Your task to perform on an android device: Add usb-c to usb-b to the cart on ebay Image 0: 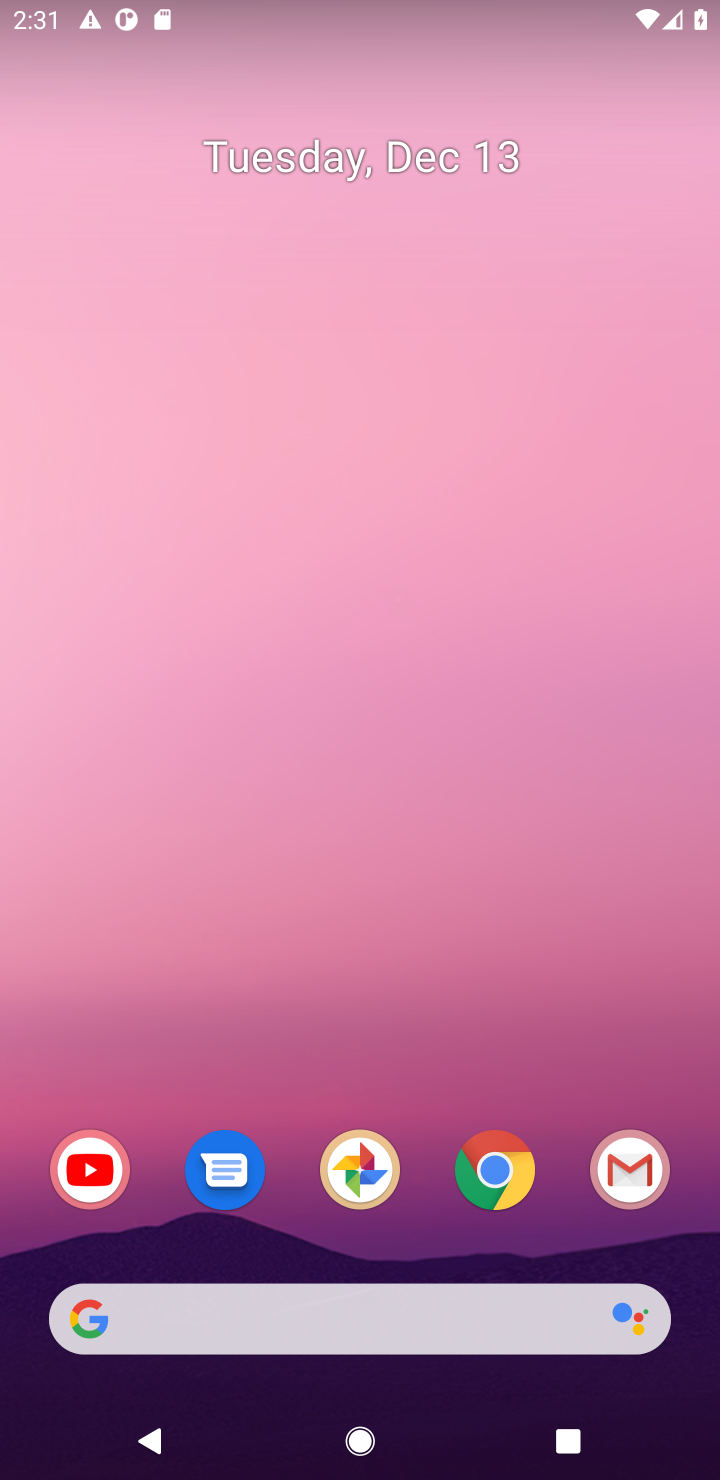
Step 0: click (283, 1317)
Your task to perform on an android device: Add usb-c to usb-b to the cart on ebay Image 1: 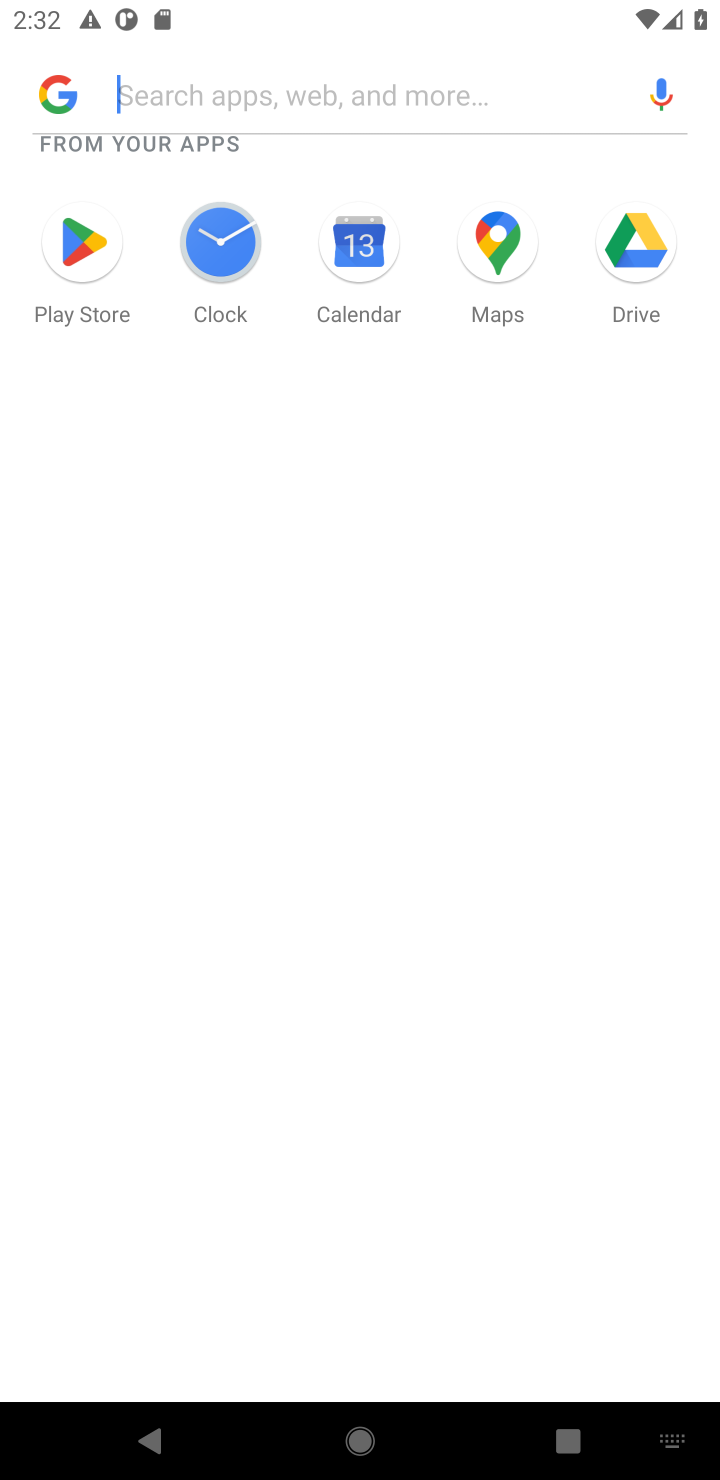
Step 1: press back button
Your task to perform on an android device: Add usb-c to usb-b to the cart on ebay Image 2: 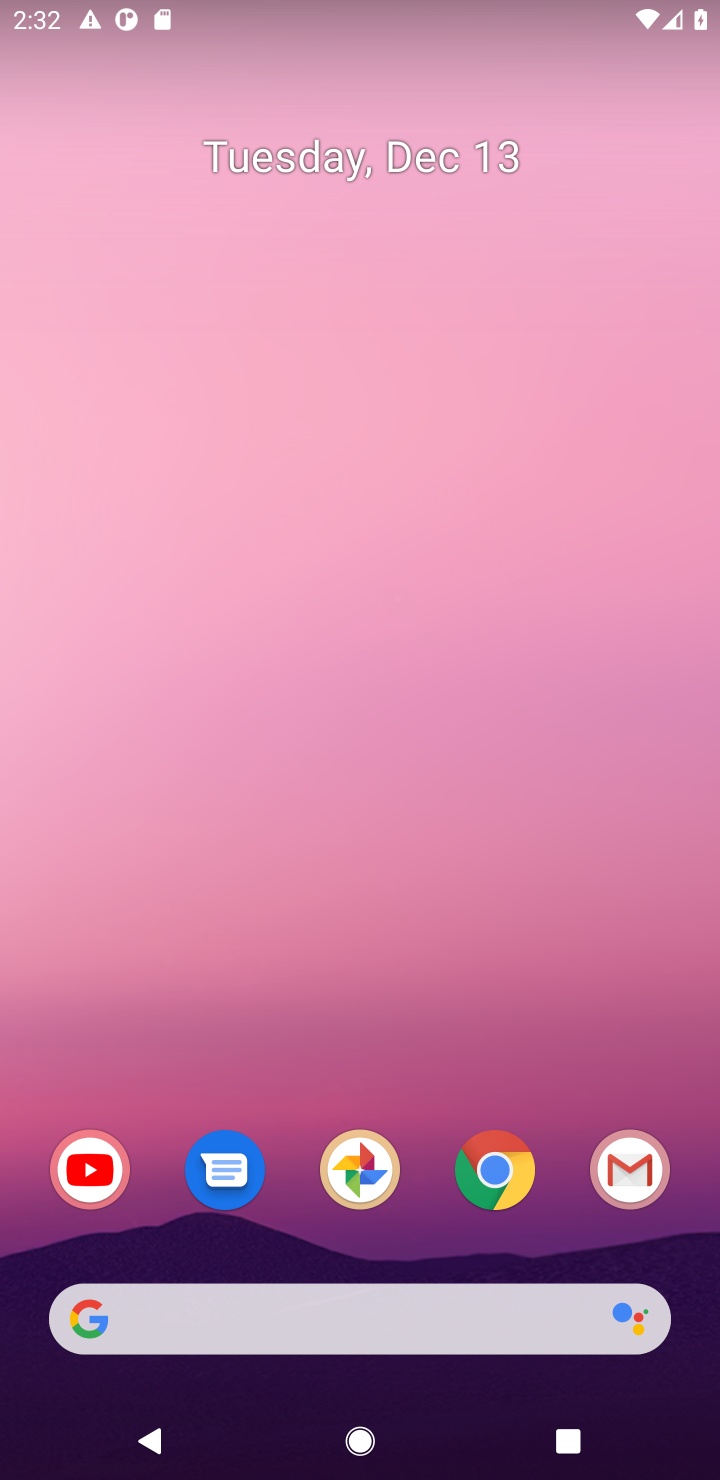
Step 2: click (485, 1163)
Your task to perform on an android device: Add usb-c to usb-b to the cart on ebay Image 3: 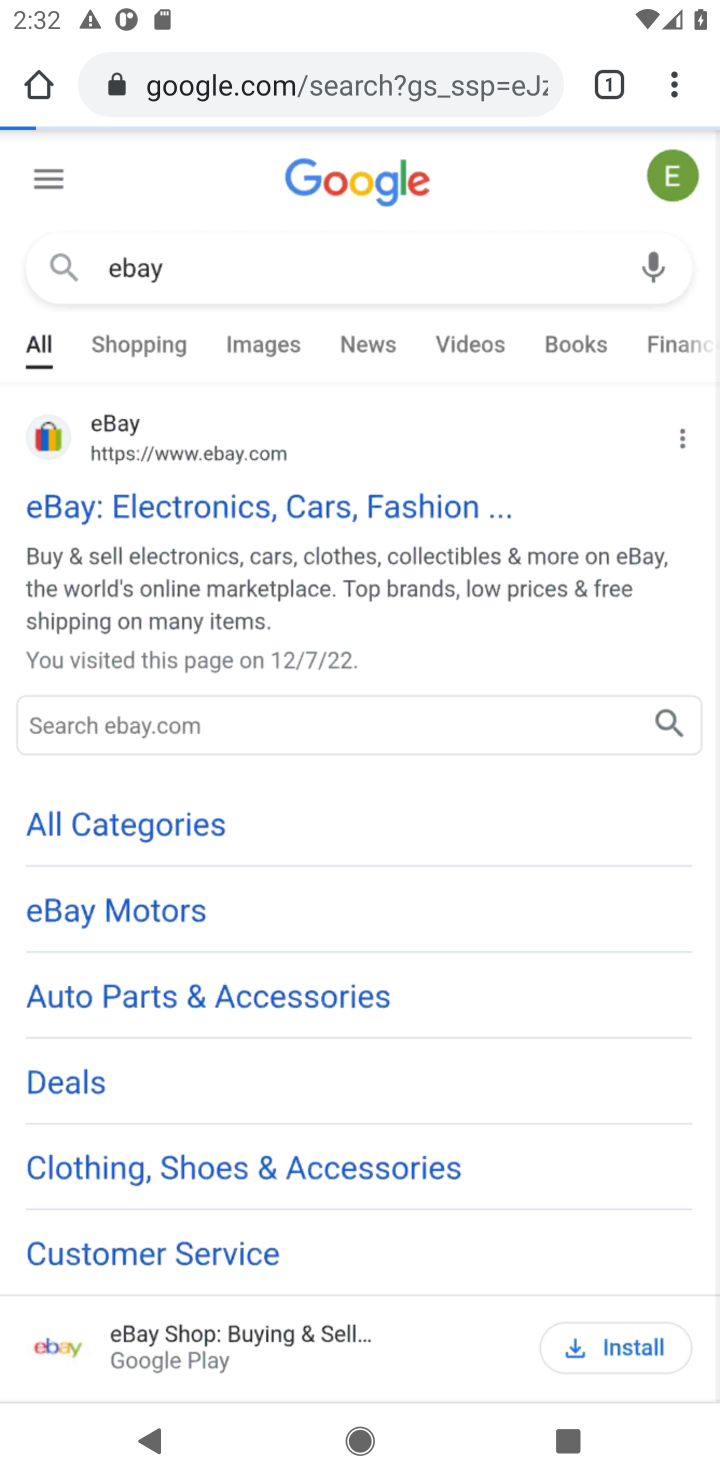
Step 3: click (134, 514)
Your task to perform on an android device: Add usb-c to usb-b to the cart on ebay Image 4: 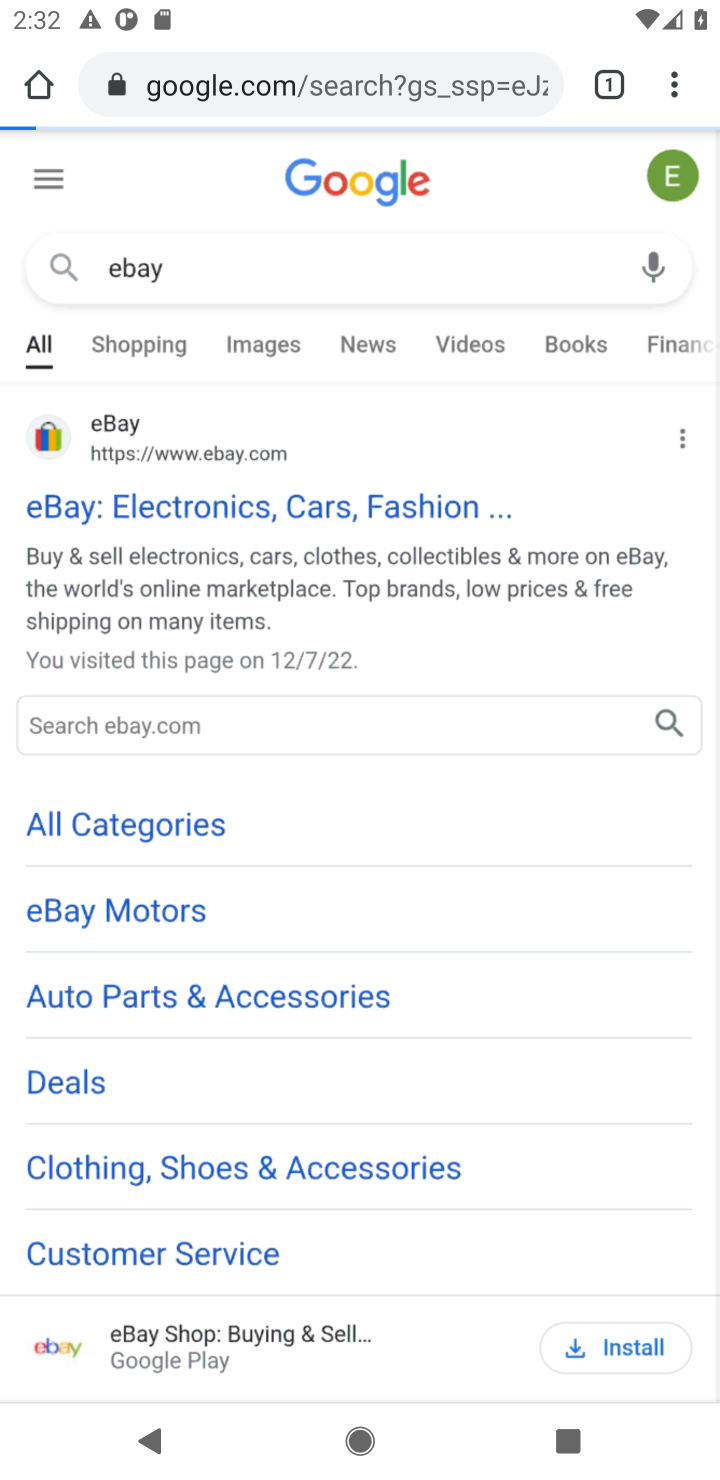
Step 4: click (304, 513)
Your task to perform on an android device: Add usb-c to usb-b to the cart on ebay Image 5: 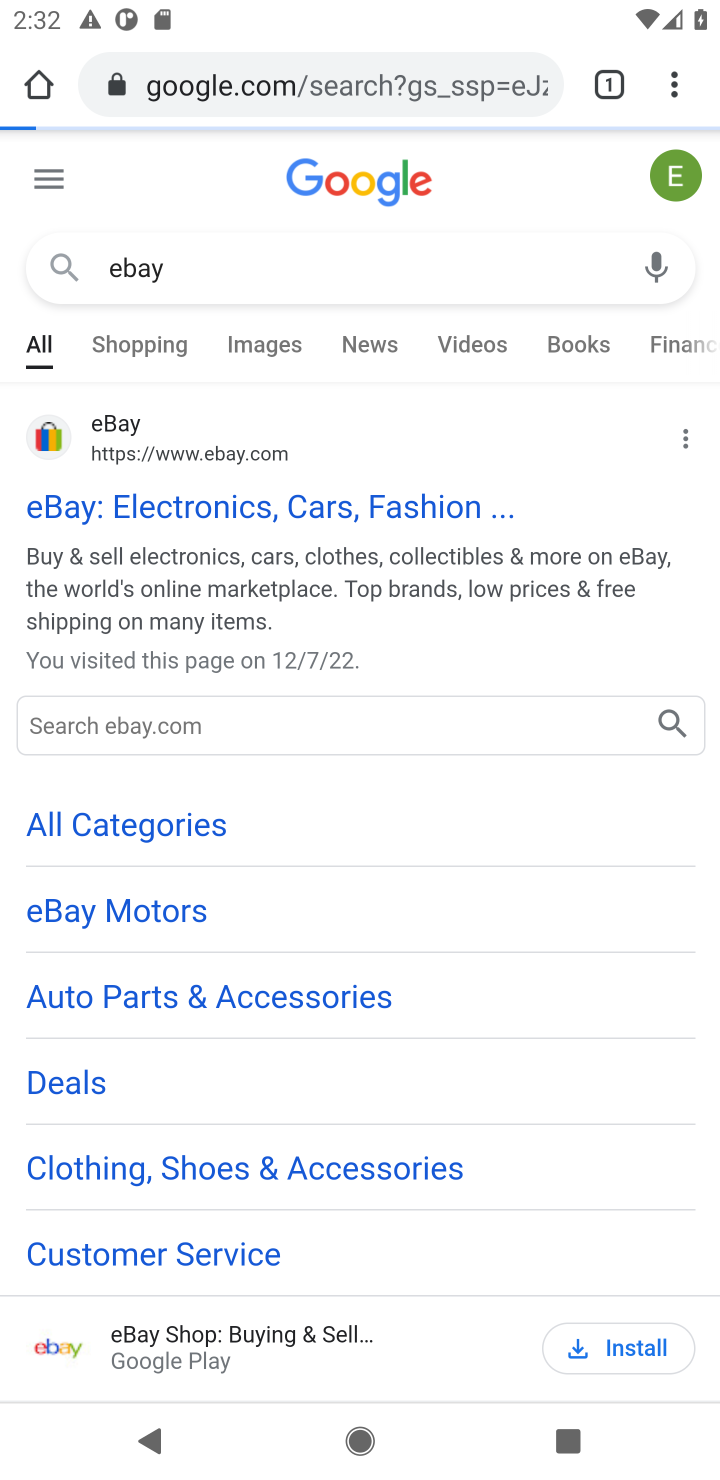
Step 5: click (285, 489)
Your task to perform on an android device: Add usb-c to usb-b to the cart on ebay Image 6: 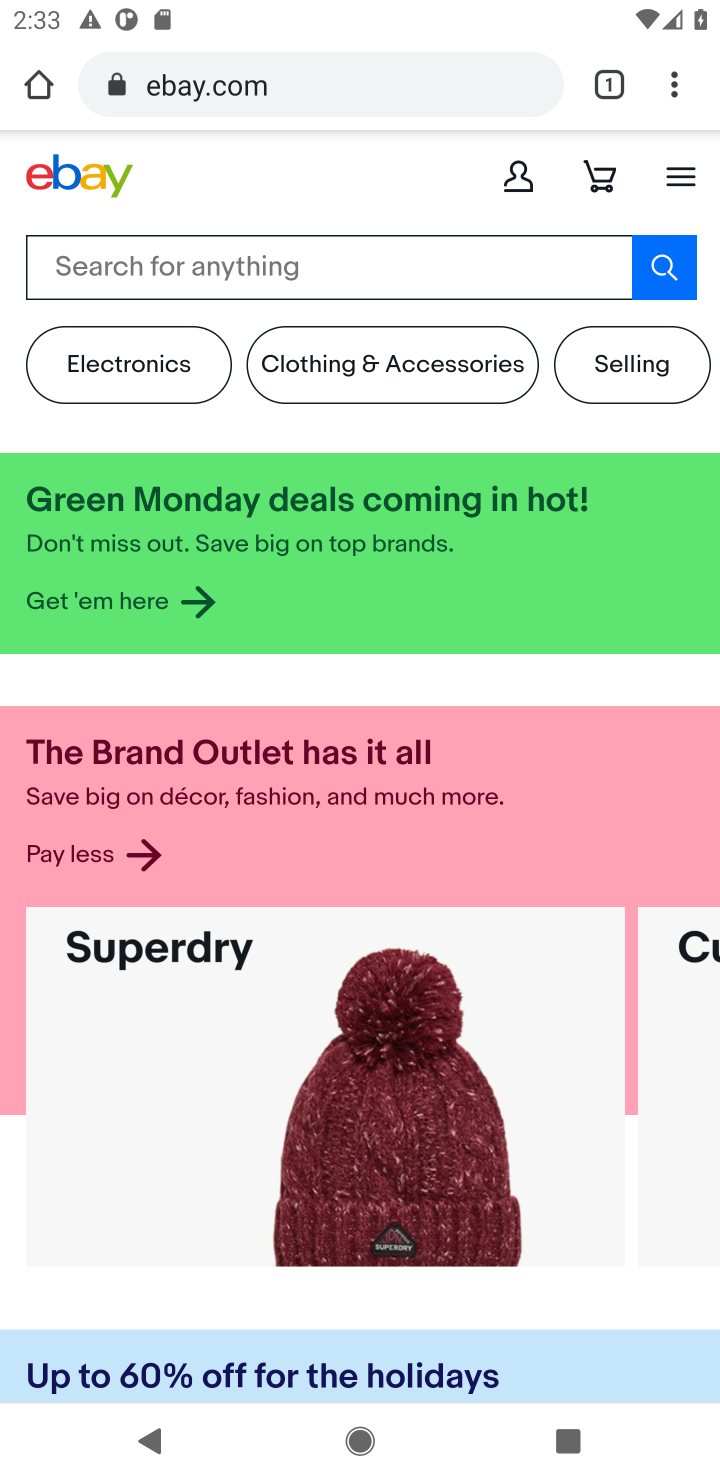
Step 6: click (431, 258)
Your task to perform on an android device: Add usb-c to usb-b to the cart on ebay Image 7: 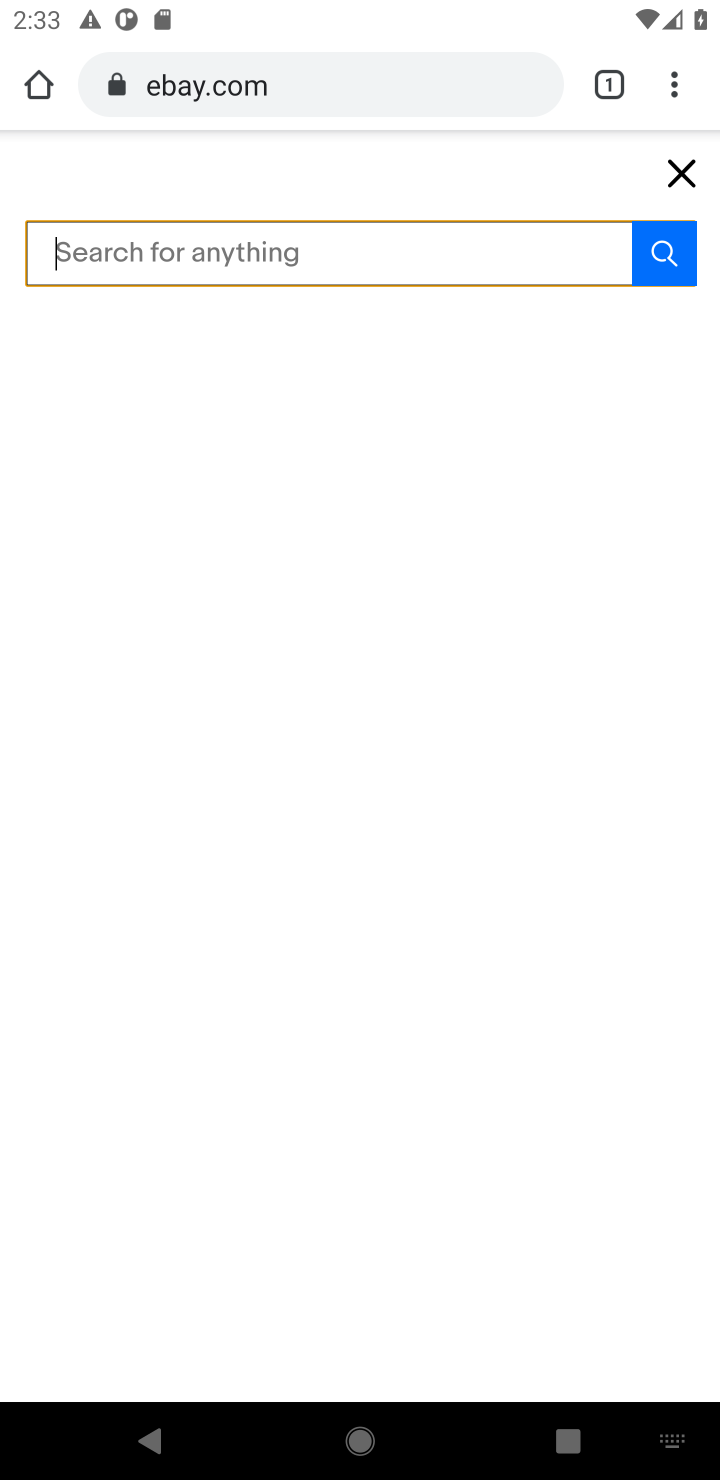
Step 7: type "usb-c to usb-b"
Your task to perform on an android device: Add usb-c to usb-b to the cart on ebay Image 8: 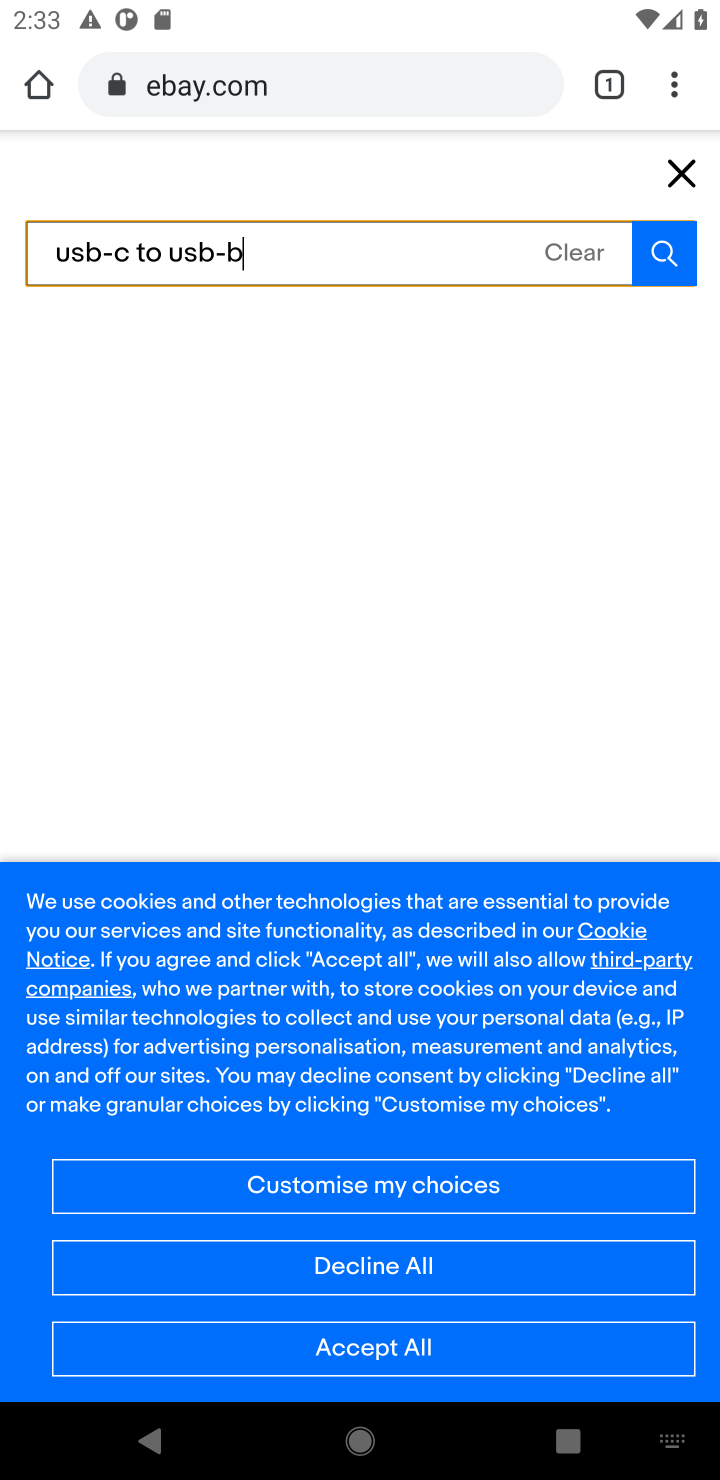
Step 8: click (674, 247)
Your task to perform on an android device: Add usb-c to usb-b to the cart on ebay Image 9: 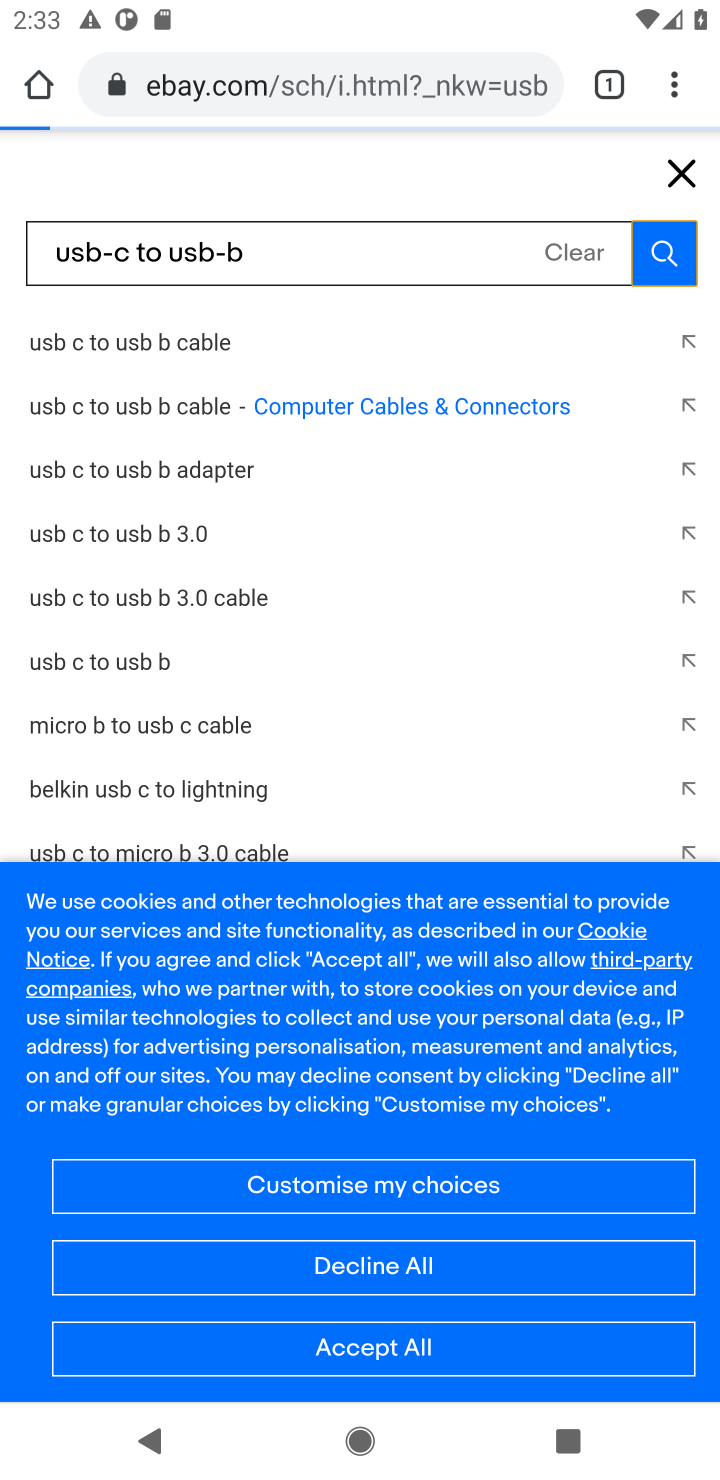
Step 9: click (378, 1346)
Your task to perform on an android device: Add usb-c to usb-b to the cart on ebay Image 10: 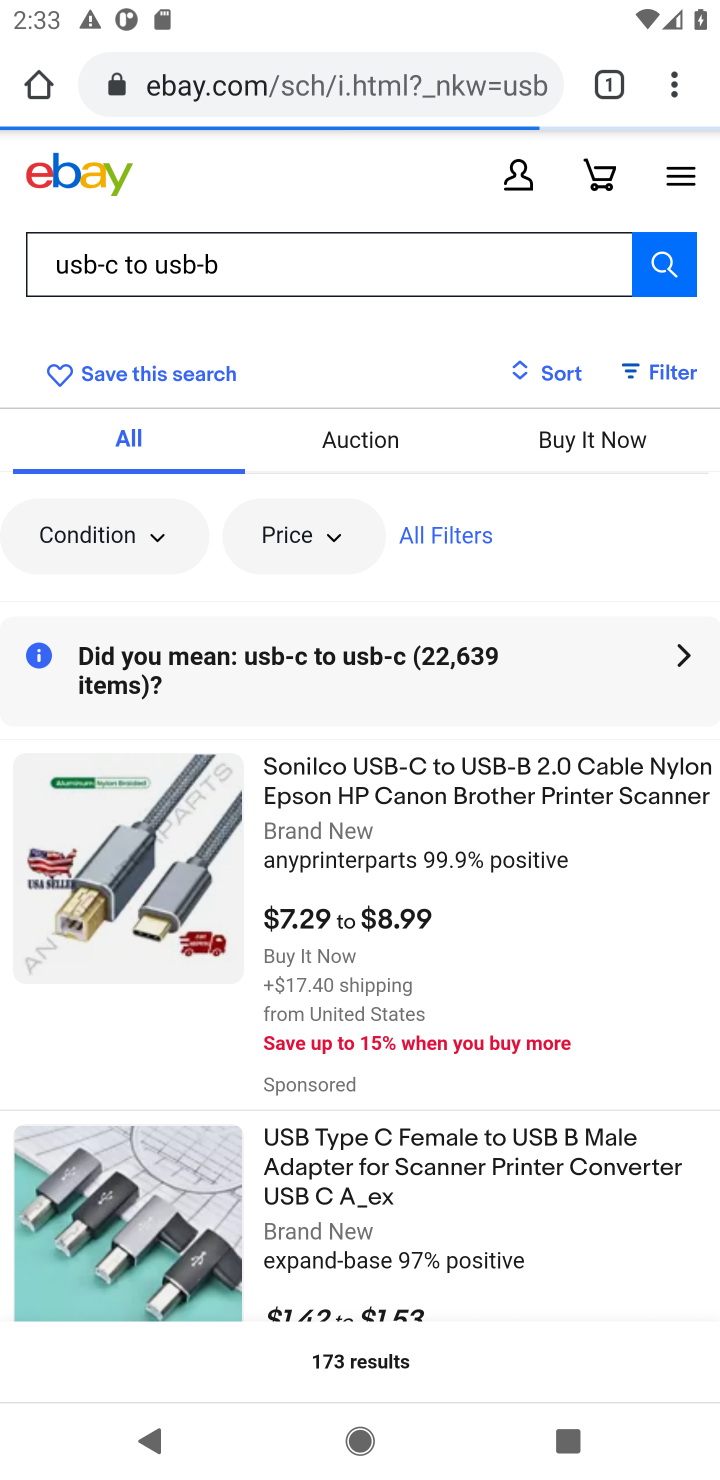
Step 10: click (378, 810)
Your task to perform on an android device: Add usb-c to usb-b to the cart on ebay Image 11: 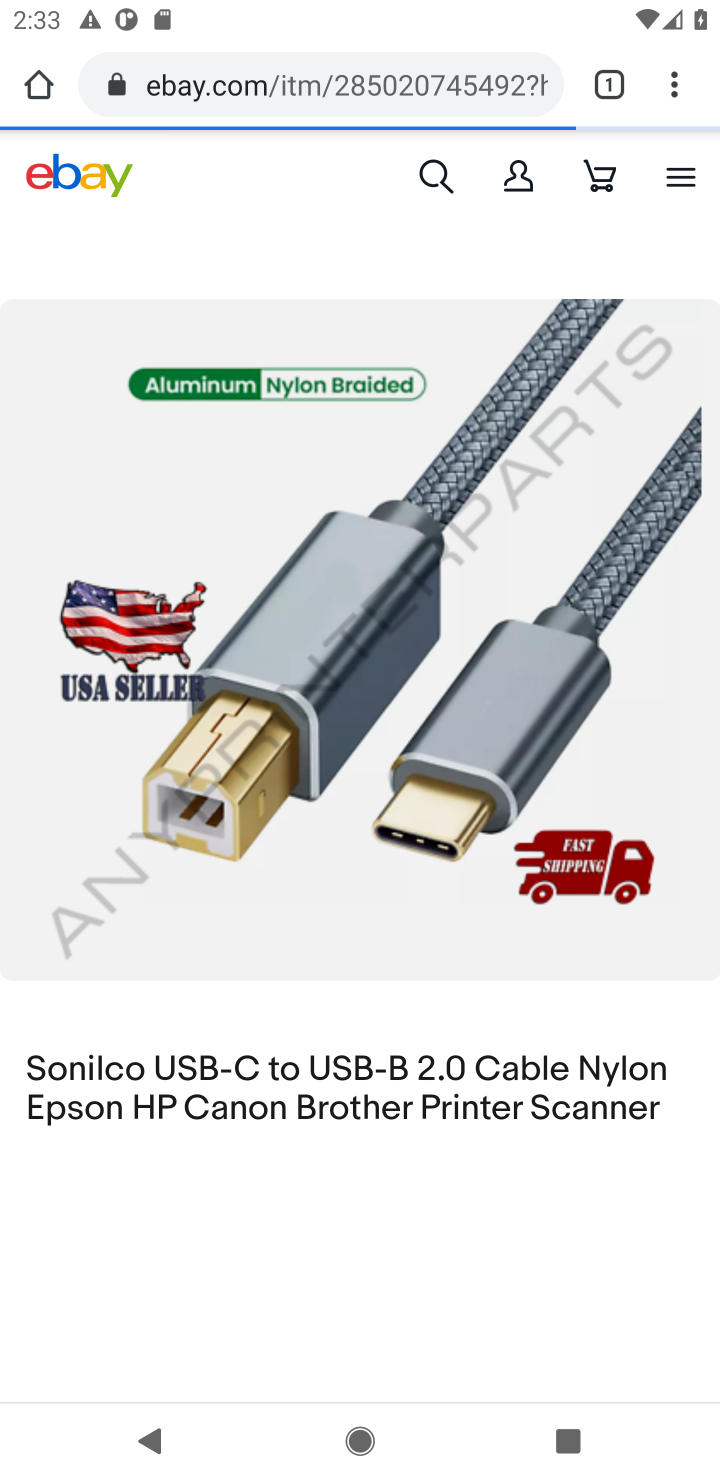
Step 11: click (380, 608)
Your task to perform on an android device: Add usb-c to usb-b to the cart on ebay Image 12: 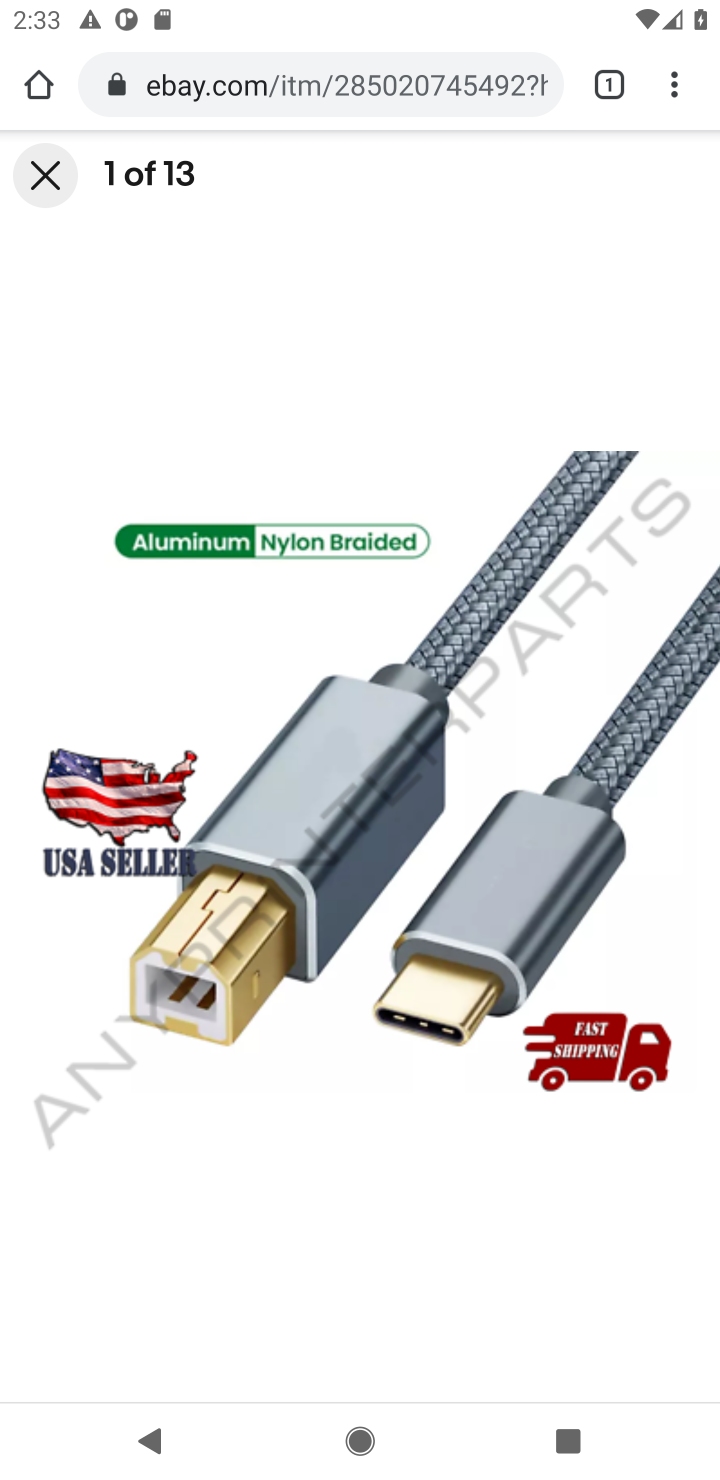
Step 12: drag from (400, 1230) to (402, 756)
Your task to perform on an android device: Add usb-c to usb-b to the cart on ebay Image 13: 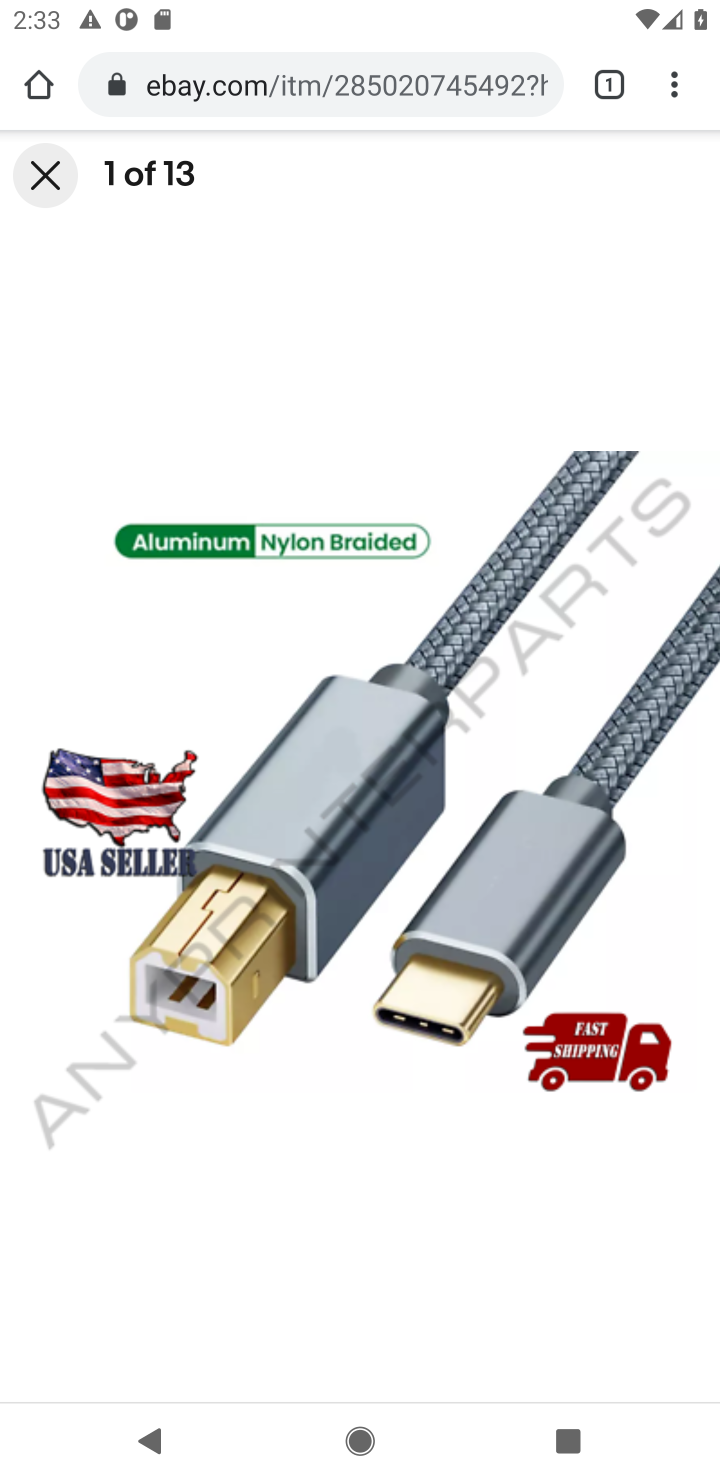
Step 13: click (42, 167)
Your task to perform on an android device: Add usb-c to usb-b to the cart on ebay Image 14: 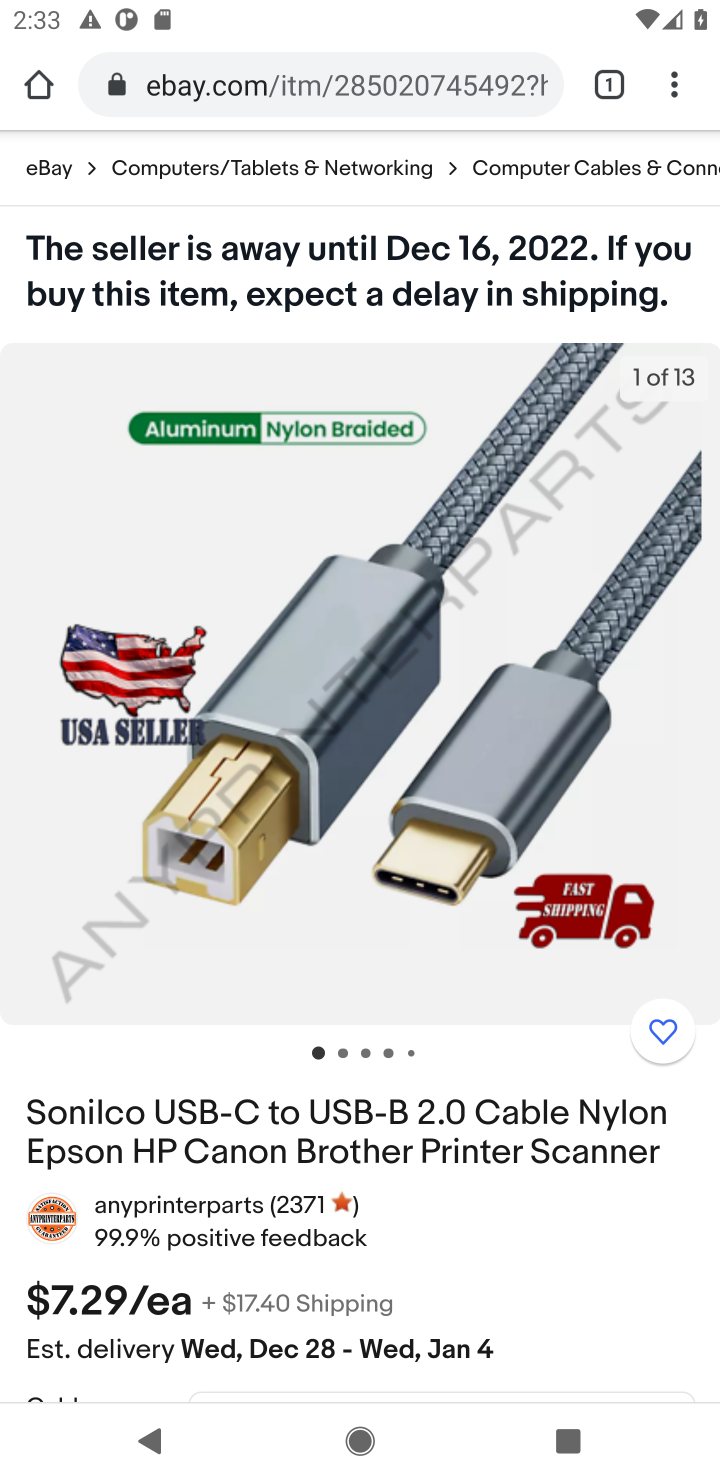
Step 14: drag from (390, 700) to (418, 627)
Your task to perform on an android device: Add usb-c to usb-b to the cart on ebay Image 15: 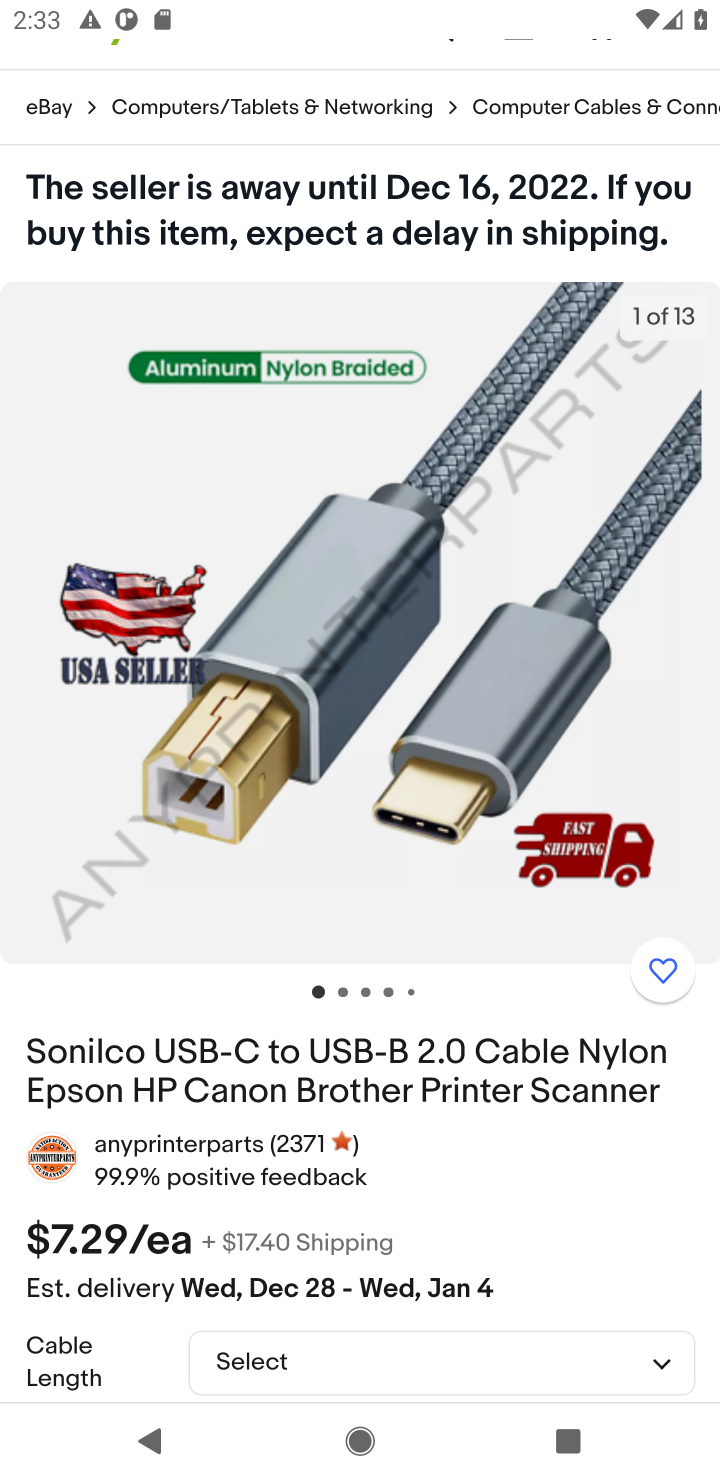
Step 15: drag from (394, 1258) to (394, 953)
Your task to perform on an android device: Add usb-c to usb-b to the cart on ebay Image 16: 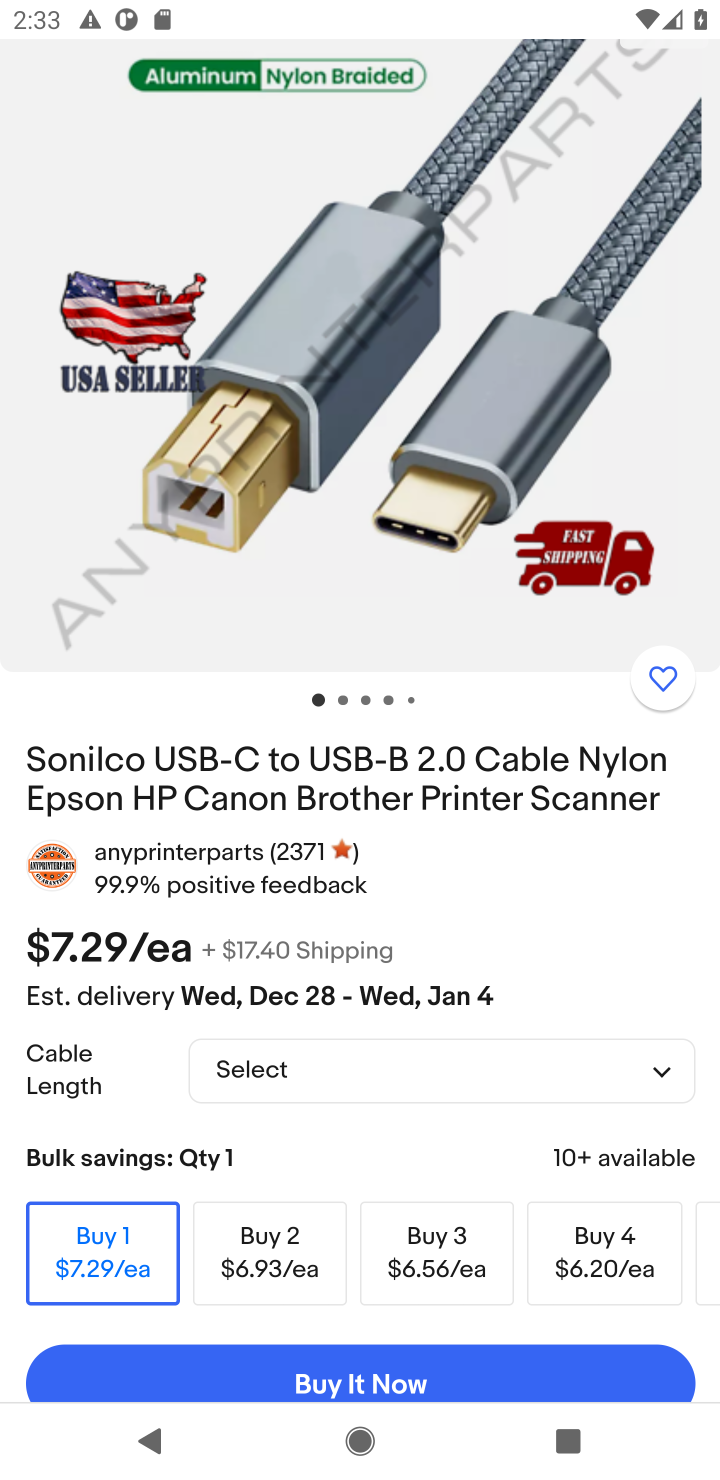
Step 16: drag from (367, 970) to (354, 683)
Your task to perform on an android device: Add usb-c to usb-b to the cart on ebay Image 17: 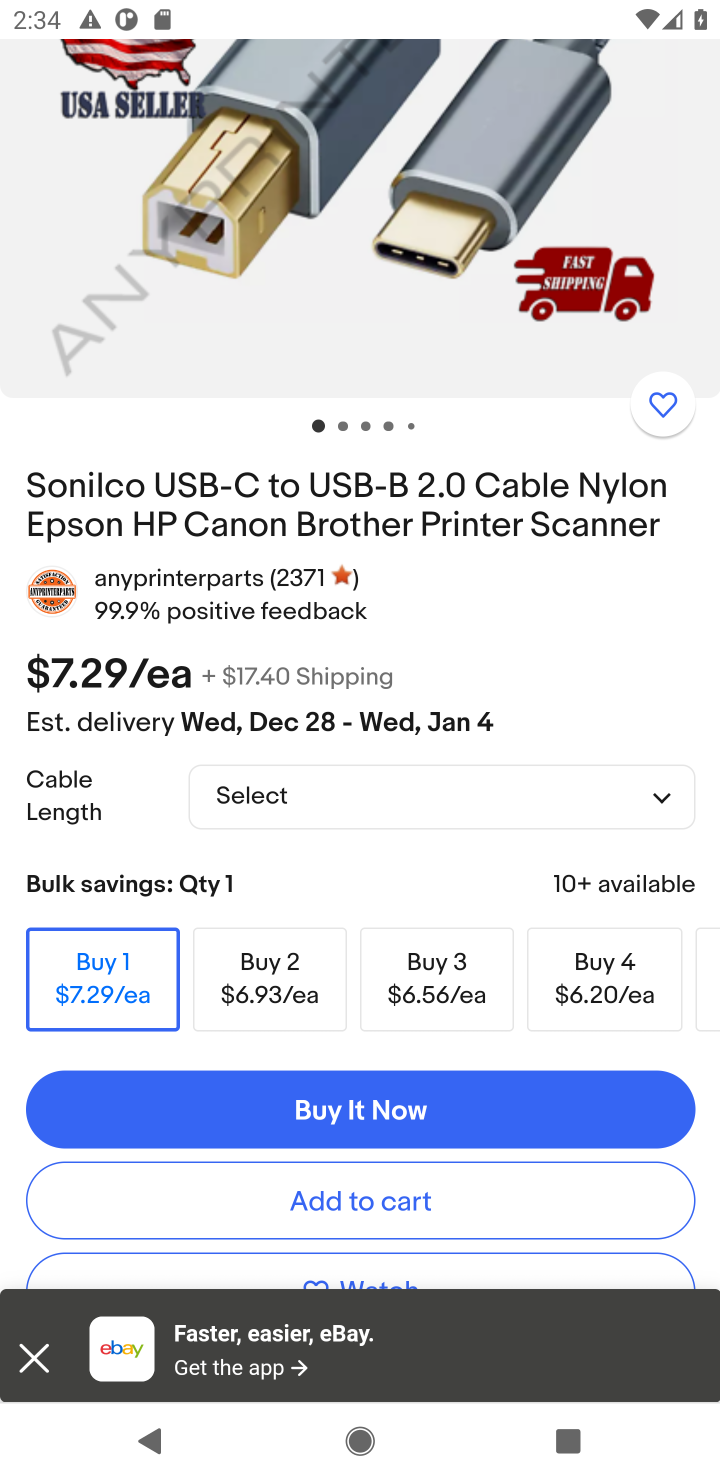
Step 17: click (342, 1199)
Your task to perform on an android device: Add usb-c to usb-b to the cart on ebay Image 18: 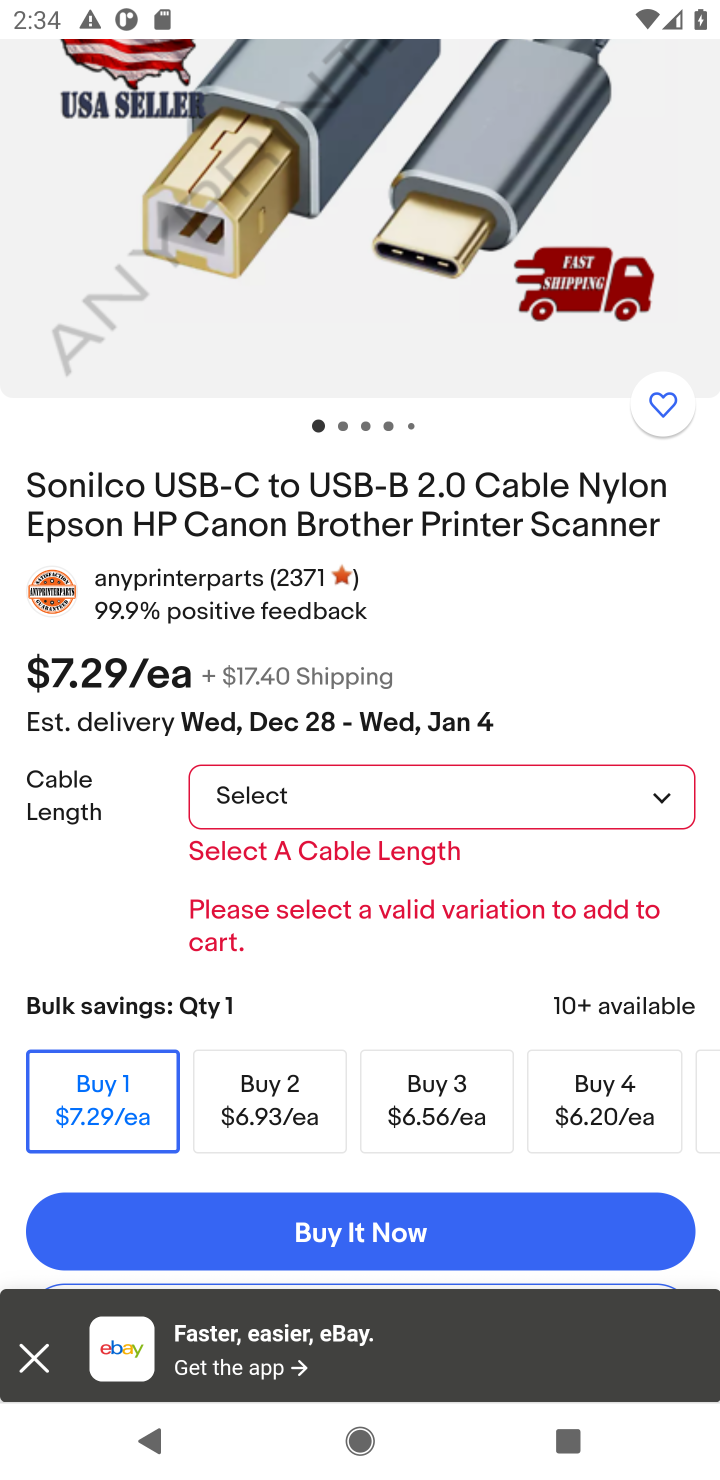
Step 18: click (627, 802)
Your task to perform on an android device: Add usb-c to usb-b to the cart on ebay Image 19: 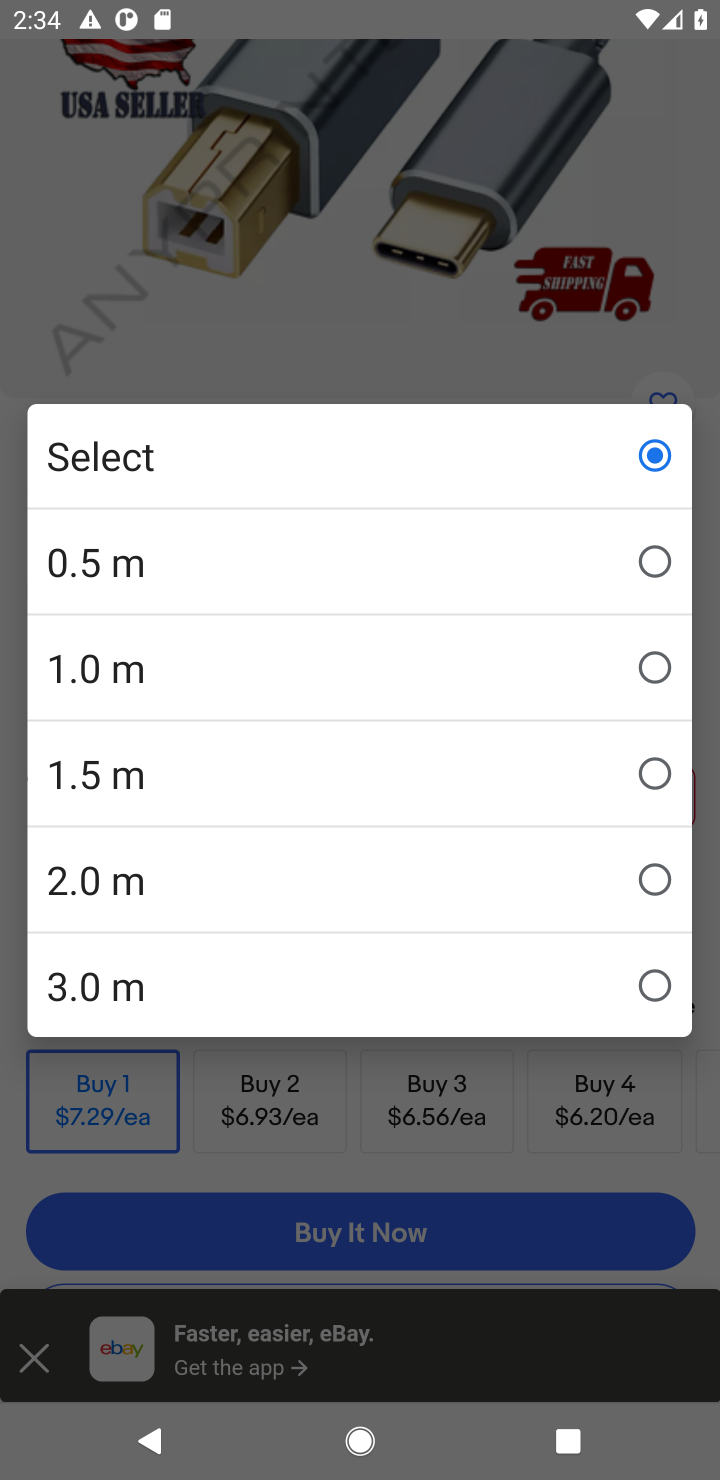
Step 19: click (644, 567)
Your task to perform on an android device: Add usb-c to usb-b to the cart on ebay Image 20: 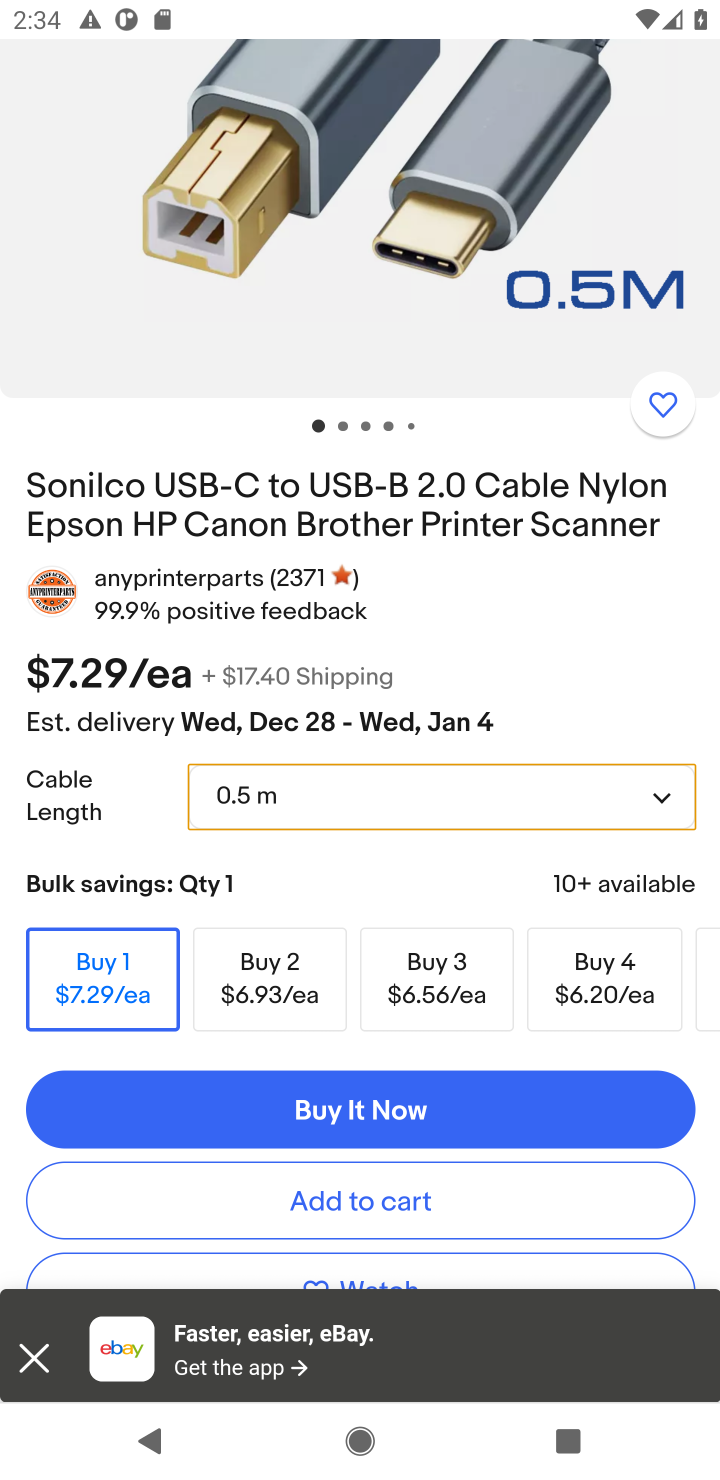
Step 20: click (340, 1196)
Your task to perform on an android device: Add usb-c to usb-b to the cart on ebay Image 21: 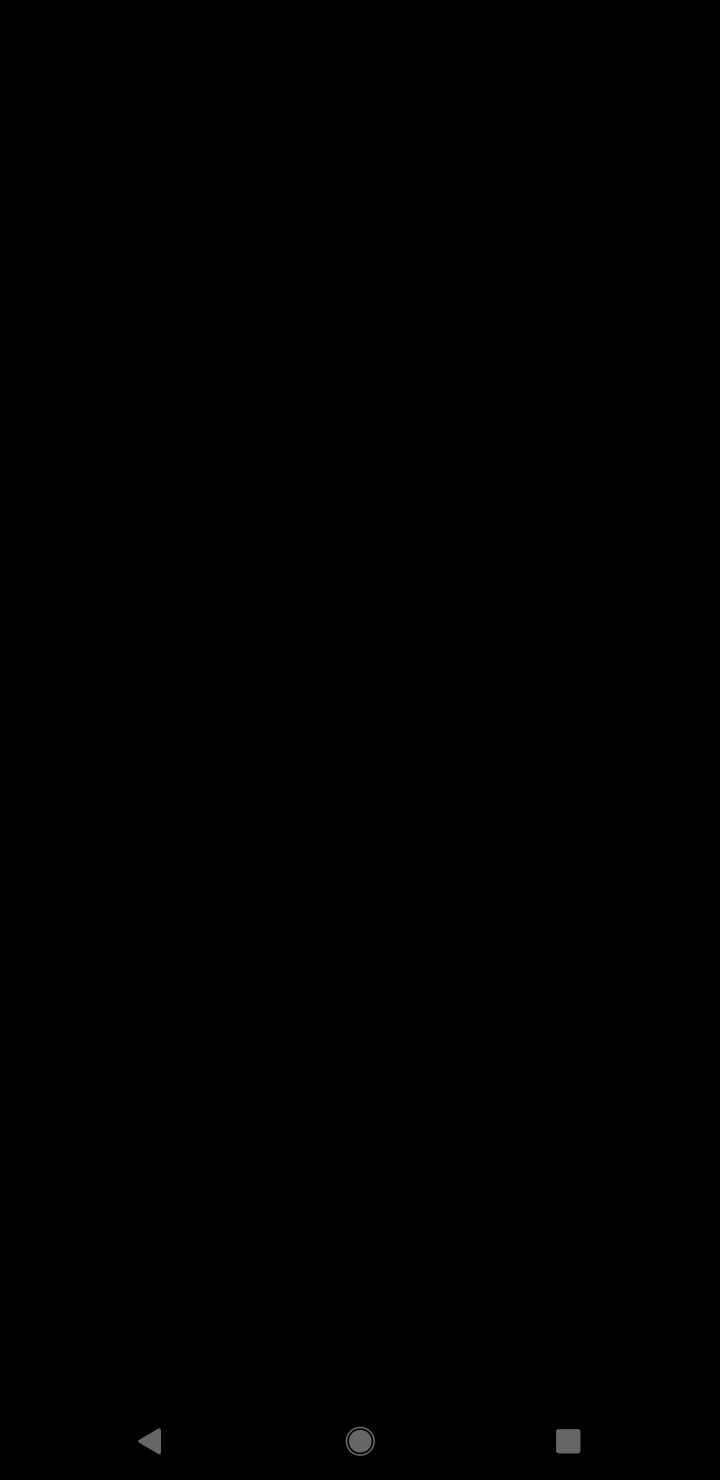
Step 21: task complete